Your task to perform on an android device: turn on improve location accuracy Image 0: 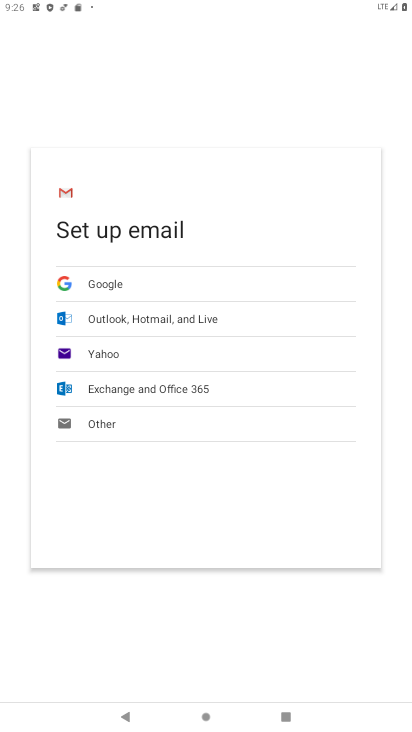
Step 0: press home button
Your task to perform on an android device: turn on improve location accuracy Image 1: 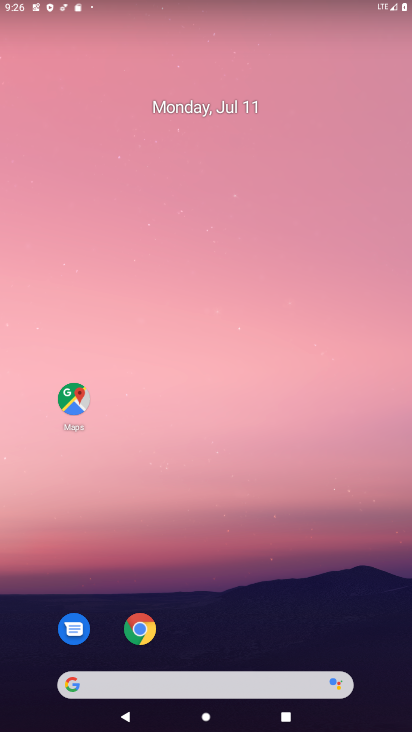
Step 1: drag from (39, 730) to (196, 279)
Your task to perform on an android device: turn on improve location accuracy Image 2: 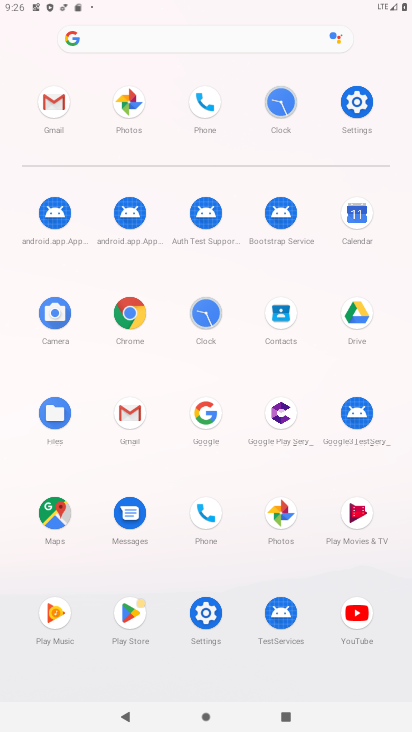
Step 2: click (209, 597)
Your task to perform on an android device: turn on improve location accuracy Image 3: 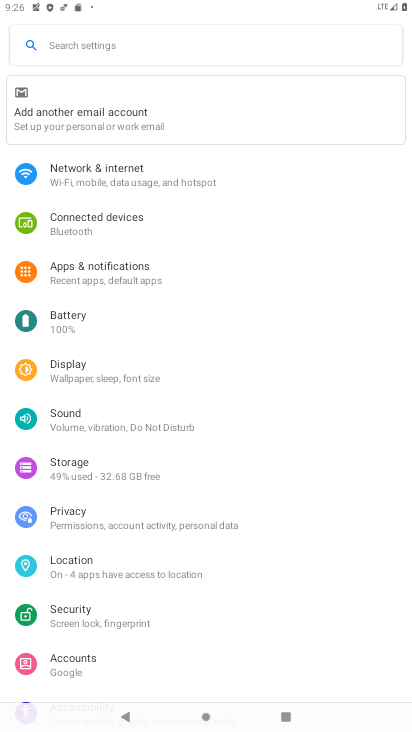
Step 3: click (67, 569)
Your task to perform on an android device: turn on improve location accuracy Image 4: 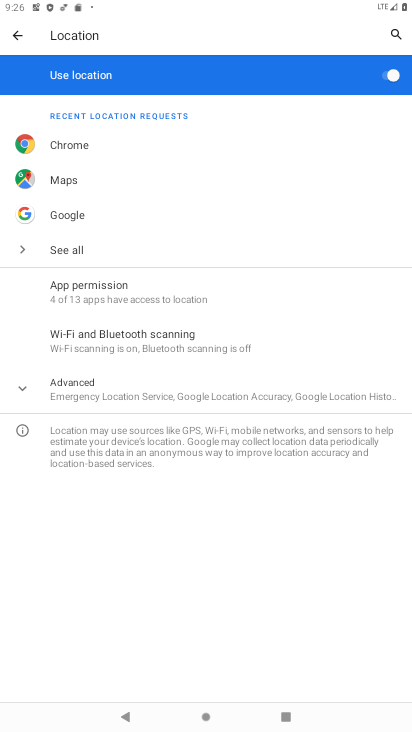
Step 4: click (70, 401)
Your task to perform on an android device: turn on improve location accuracy Image 5: 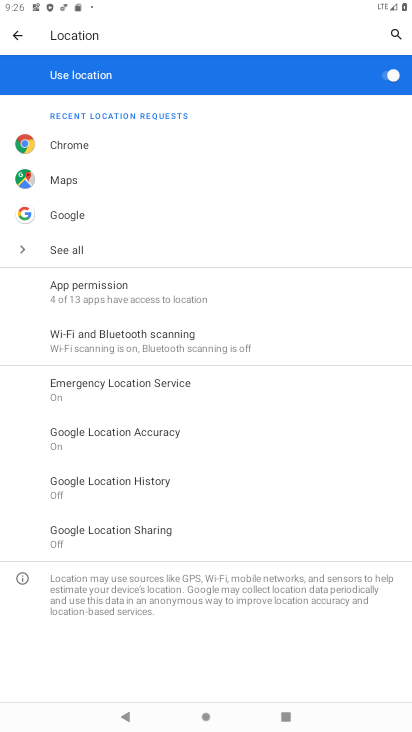
Step 5: click (101, 434)
Your task to perform on an android device: turn on improve location accuracy Image 6: 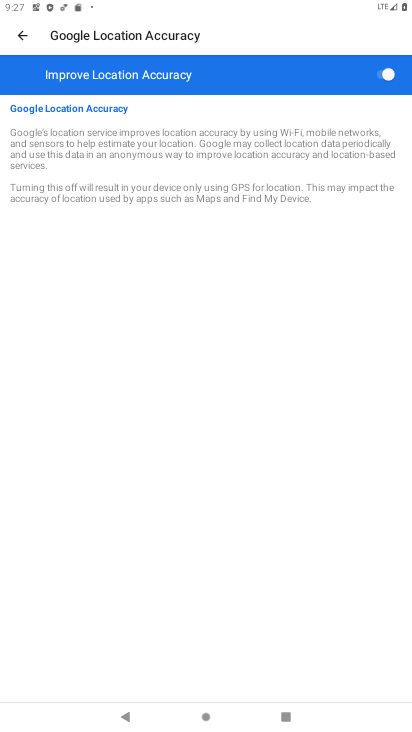
Step 6: task complete